Your task to perform on an android device: Show me the best 1080p monitor on Target.com Image 0: 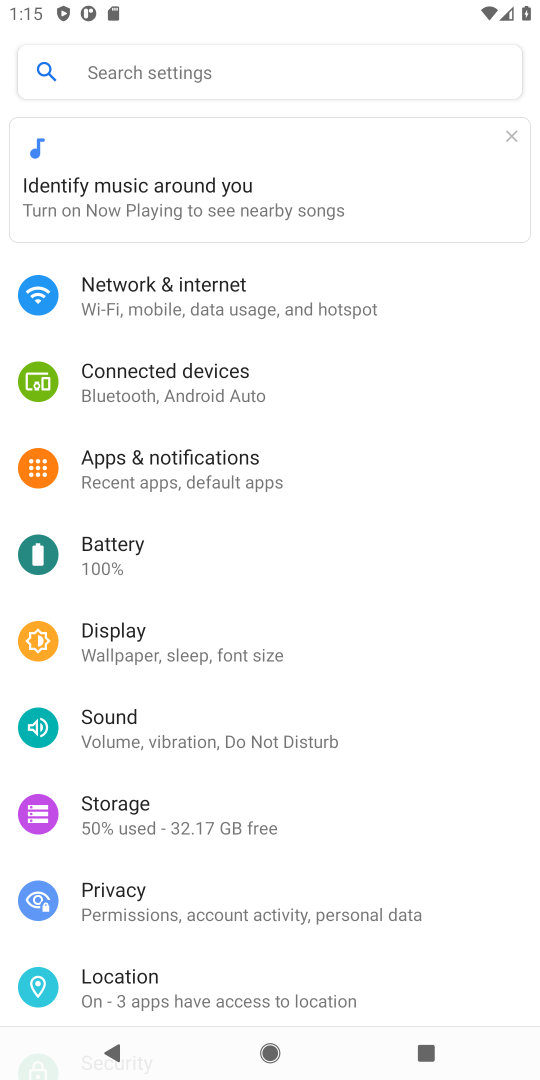
Step 0: press home button
Your task to perform on an android device: Show me the best 1080p monitor on Target.com Image 1: 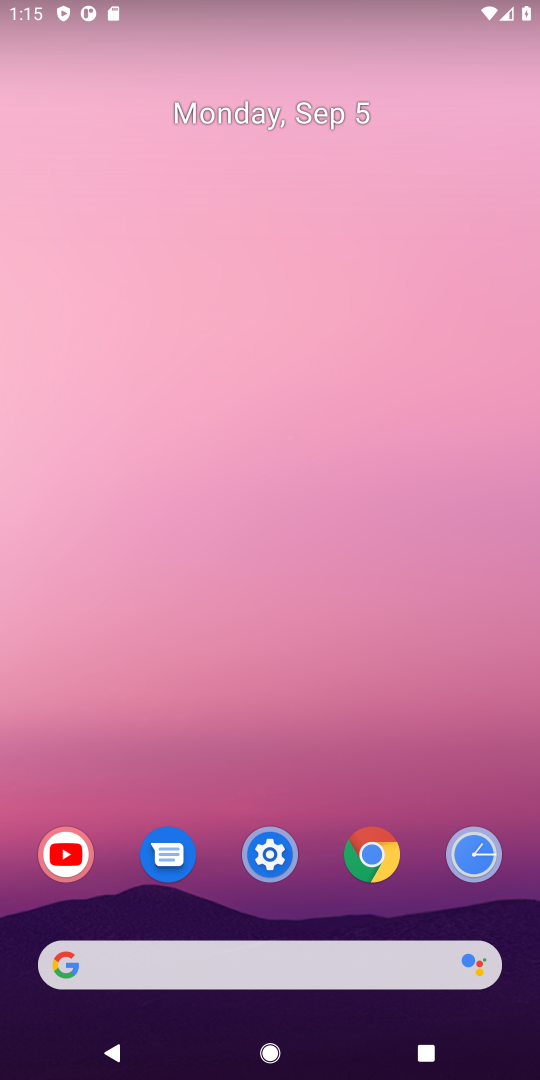
Step 1: click (368, 973)
Your task to perform on an android device: Show me the best 1080p monitor on Target.com Image 2: 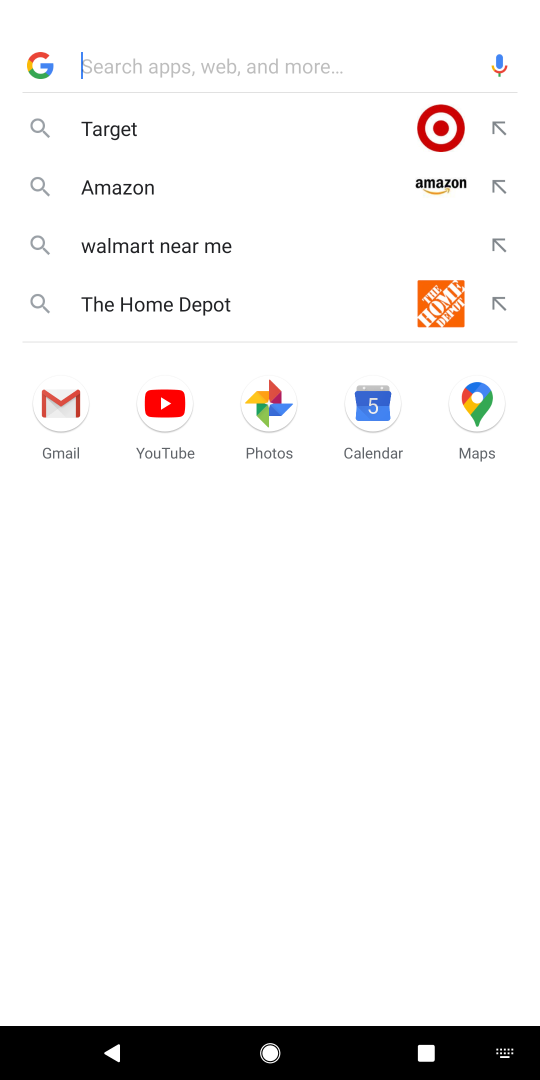
Step 2: click (137, 135)
Your task to perform on an android device: Show me the best 1080p monitor on Target.com Image 3: 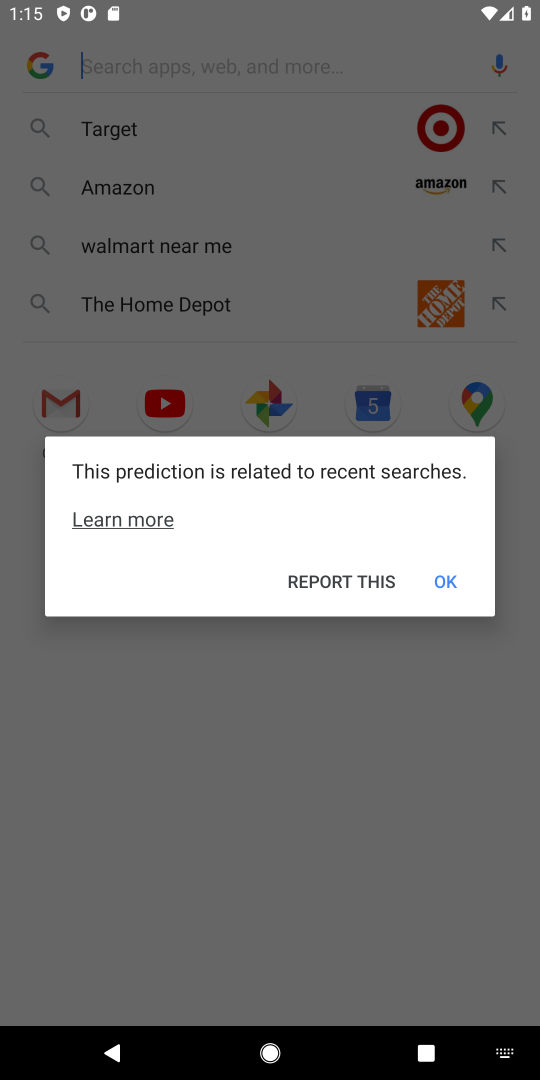
Step 3: click (440, 577)
Your task to perform on an android device: Show me the best 1080p monitor on Target.com Image 4: 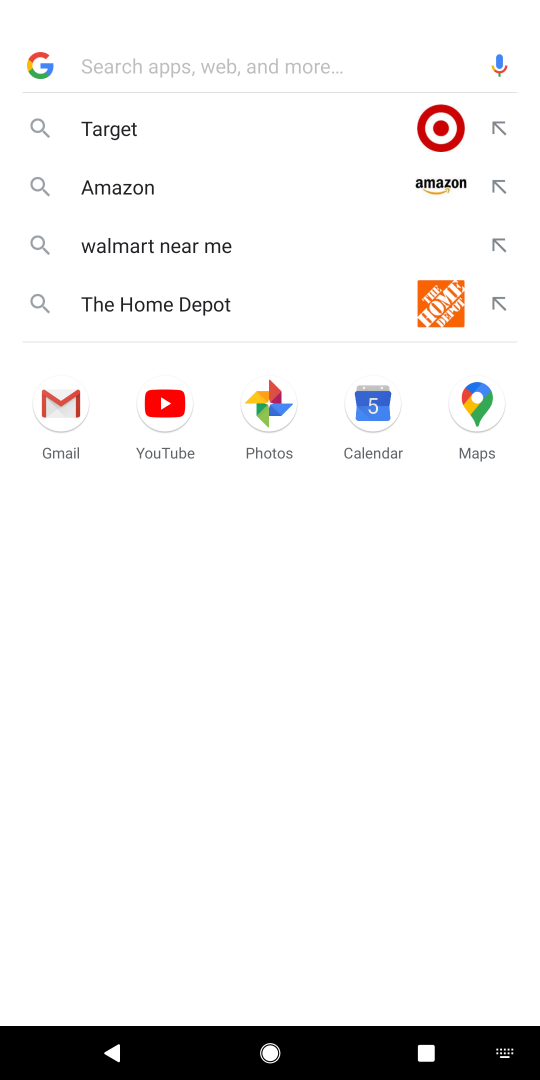
Step 4: click (146, 118)
Your task to perform on an android device: Show me the best 1080p monitor on Target.com Image 5: 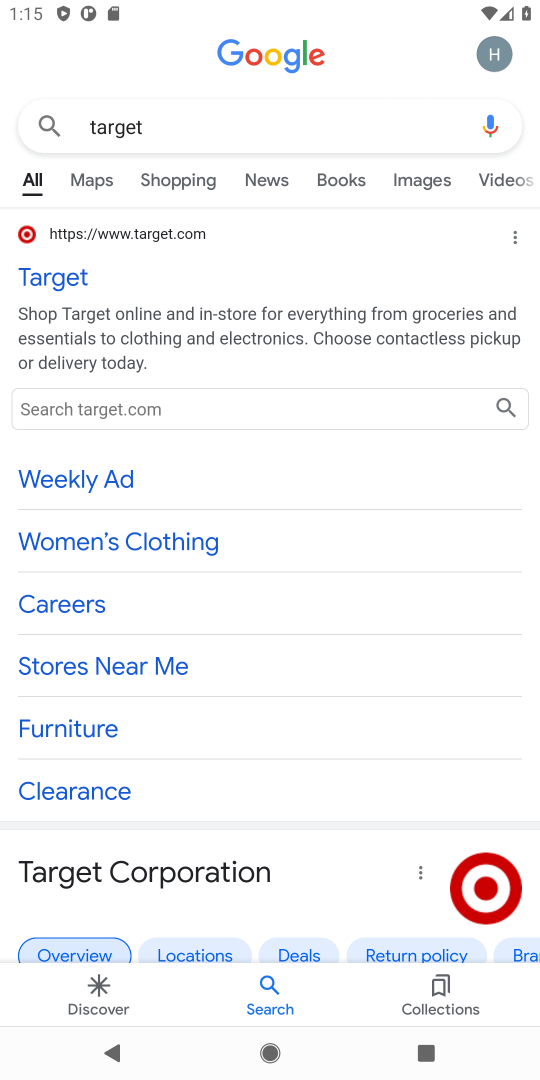
Step 5: click (63, 277)
Your task to perform on an android device: Show me the best 1080p monitor on Target.com Image 6: 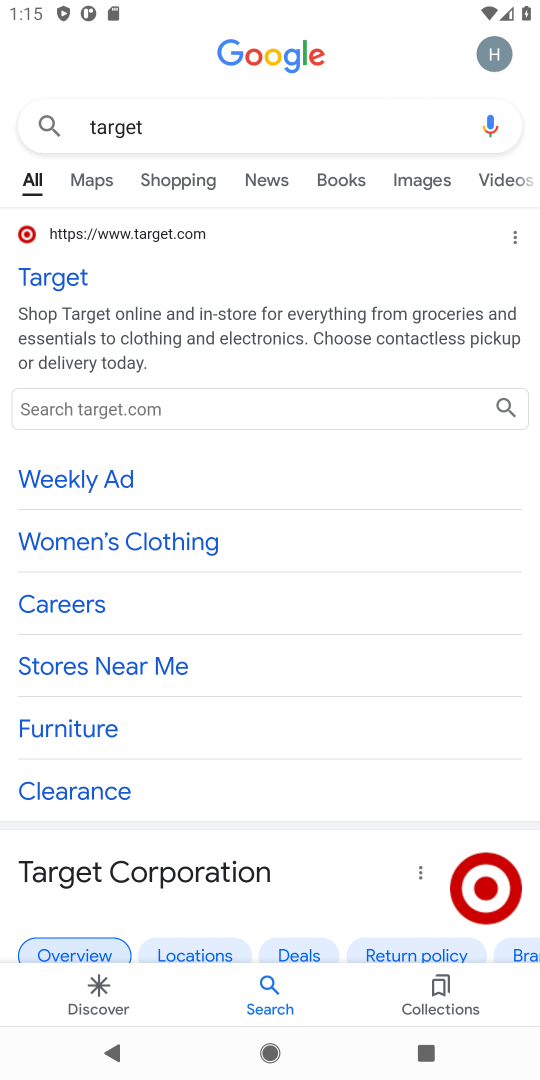
Step 6: click (63, 277)
Your task to perform on an android device: Show me the best 1080p monitor on Target.com Image 7: 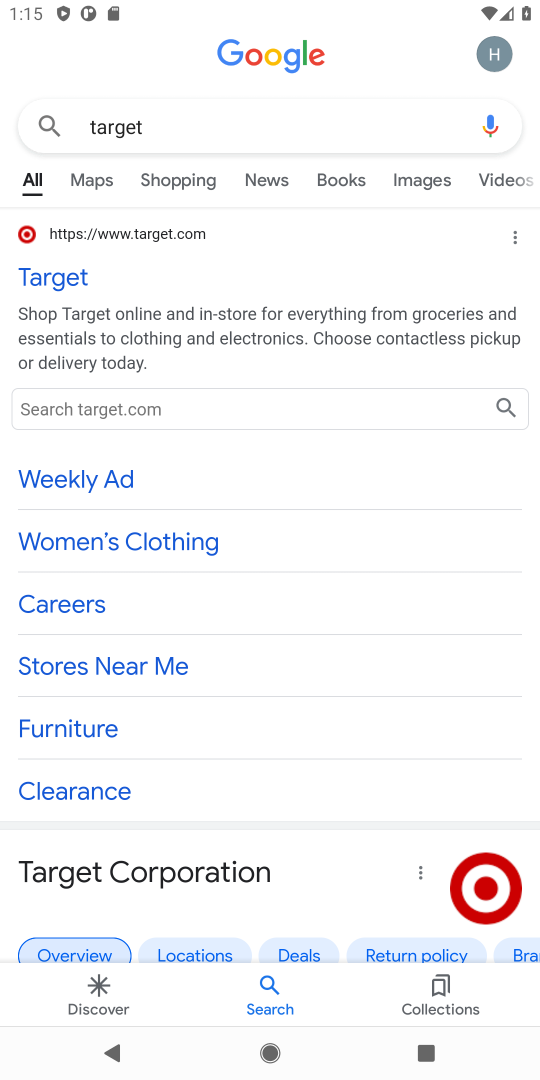
Step 7: click (63, 277)
Your task to perform on an android device: Show me the best 1080p monitor on Target.com Image 8: 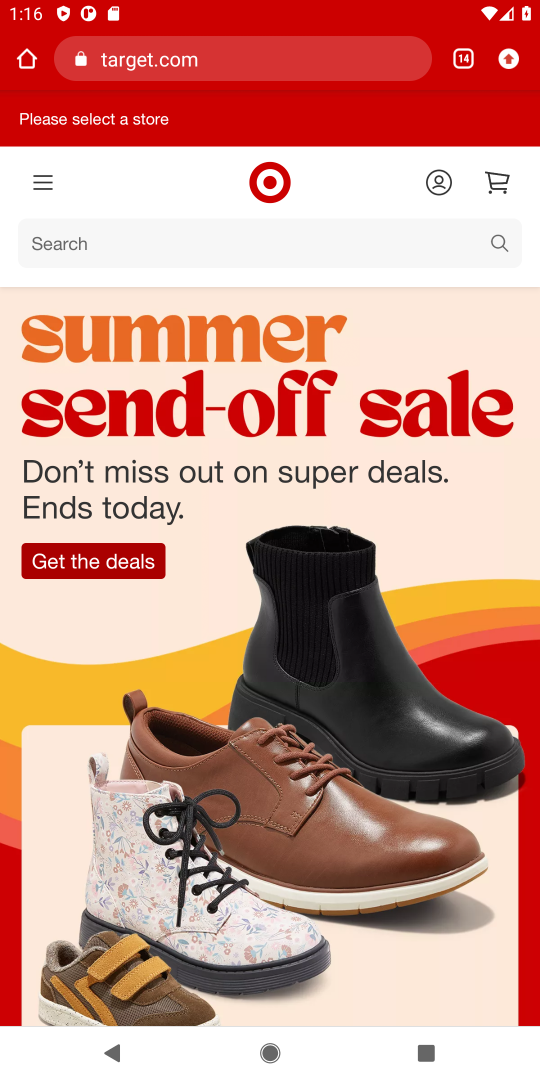
Step 8: click (402, 231)
Your task to perform on an android device: Show me the best 1080p monitor on Target.com Image 9: 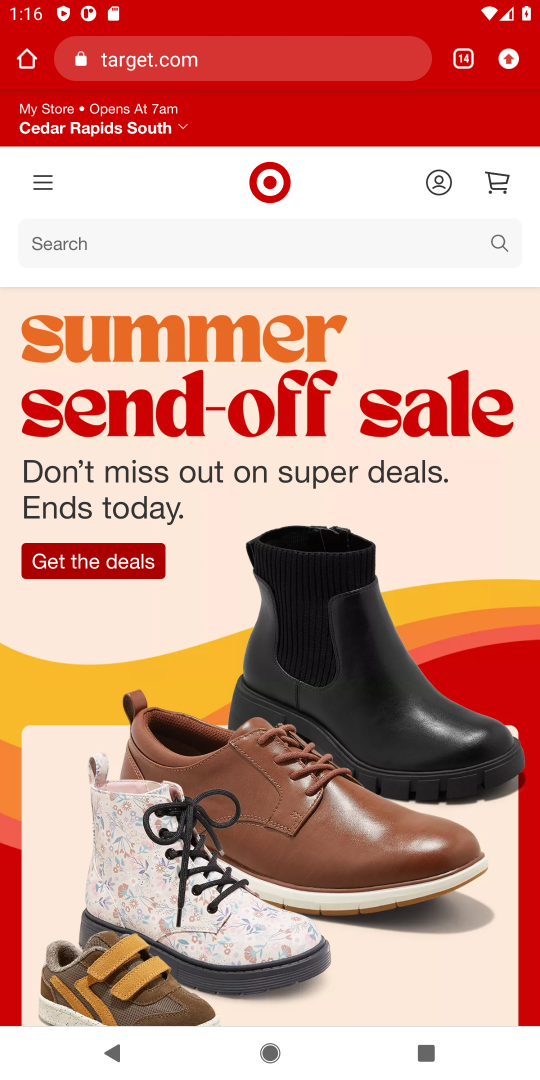
Step 9: click (425, 255)
Your task to perform on an android device: Show me the best 1080p monitor on Target.com Image 10: 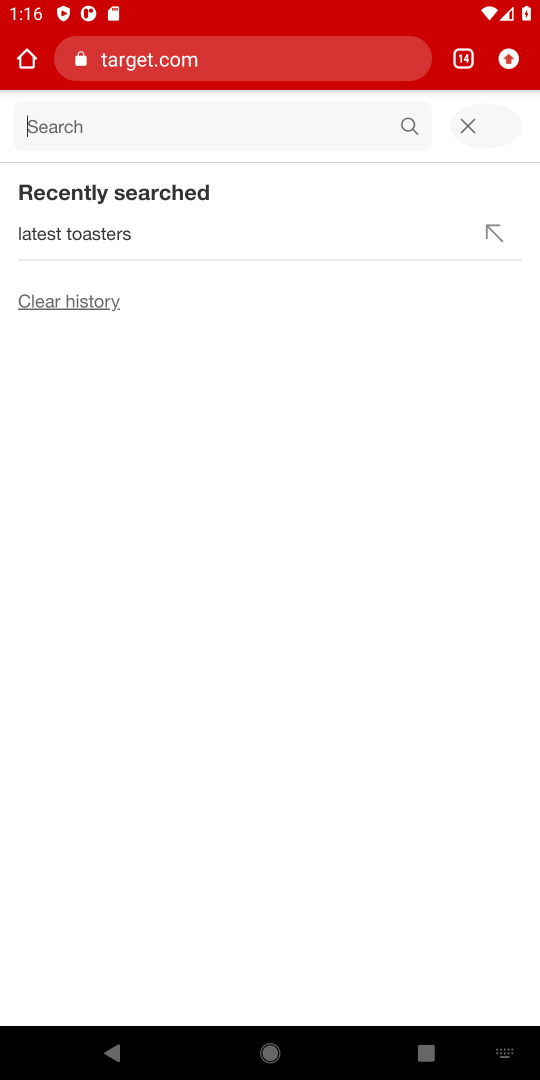
Step 10: type "1080p monitor"
Your task to perform on an android device: Show me the best 1080p monitor on Target.com Image 11: 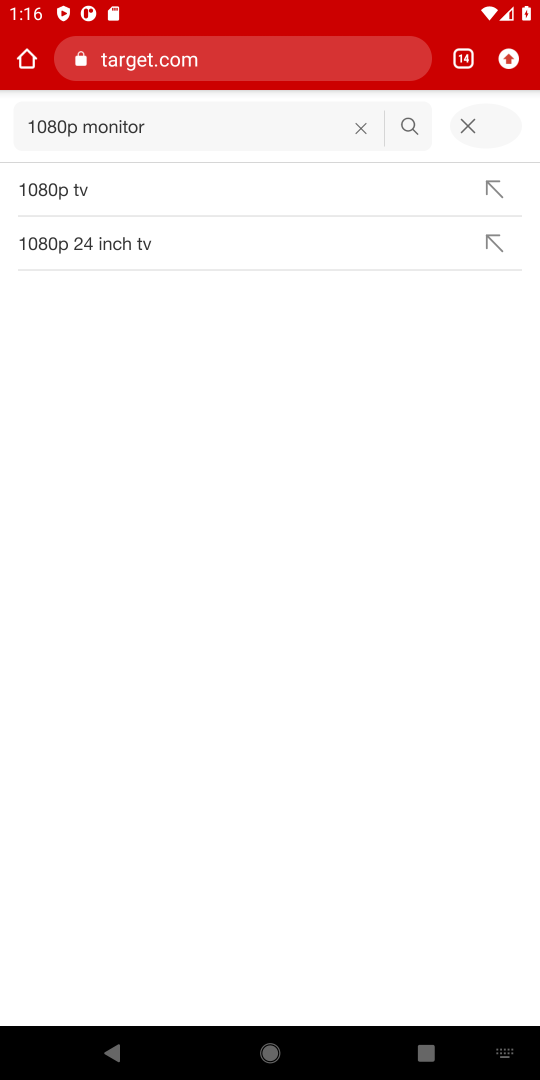
Step 11: click (424, 127)
Your task to perform on an android device: Show me the best 1080p monitor on Target.com Image 12: 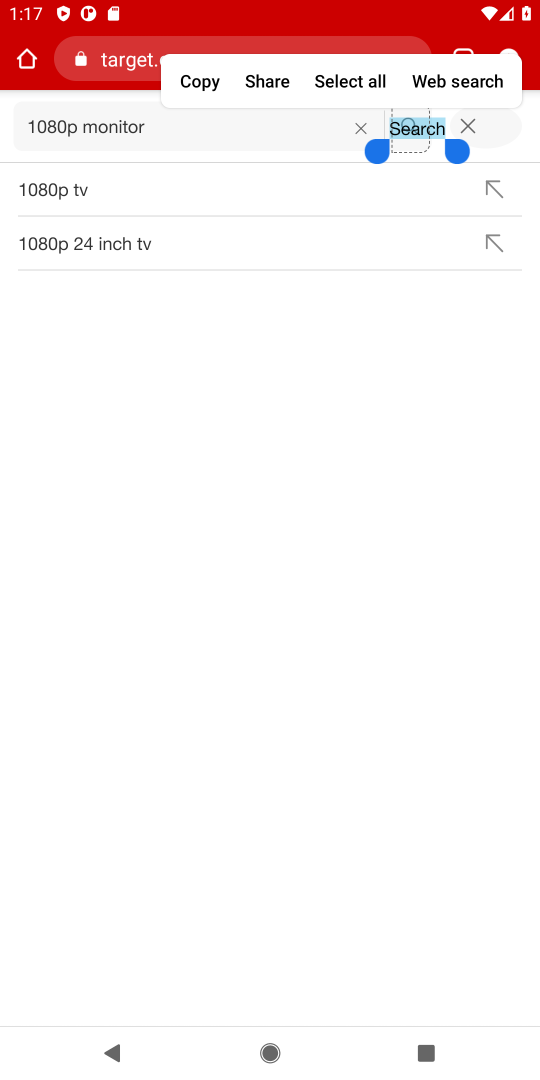
Step 12: click (411, 129)
Your task to perform on an android device: Show me the best 1080p monitor on Target.com Image 13: 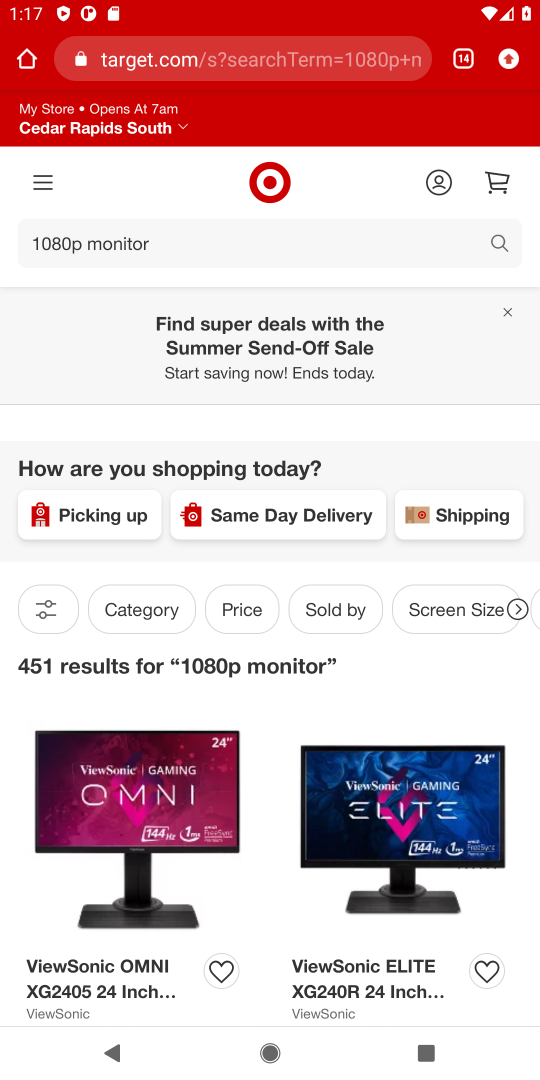
Step 13: task complete